Your task to perform on an android device: Check the weather Image 0: 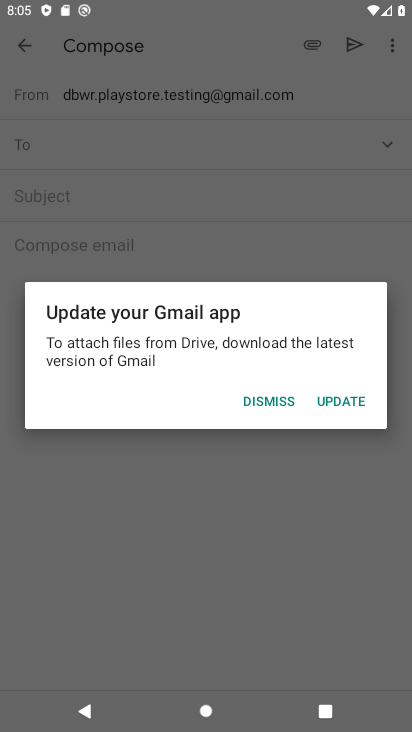
Step 0: press home button
Your task to perform on an android device: Check the weather Image 1: 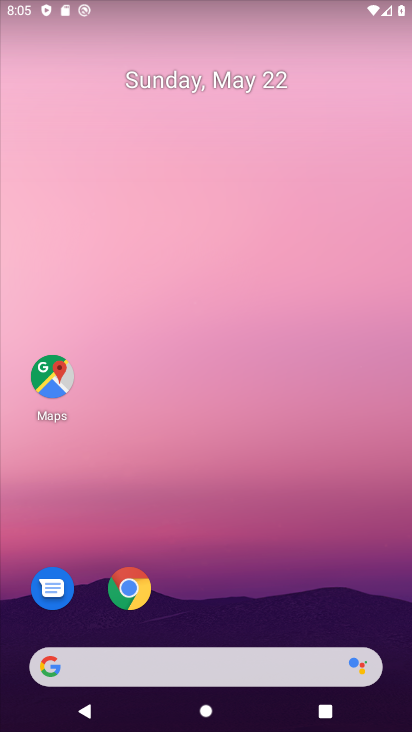
Step 1: drag from (227, 622) to (207, 144)
Your task to perform on an android device: Check the weather Image 2: 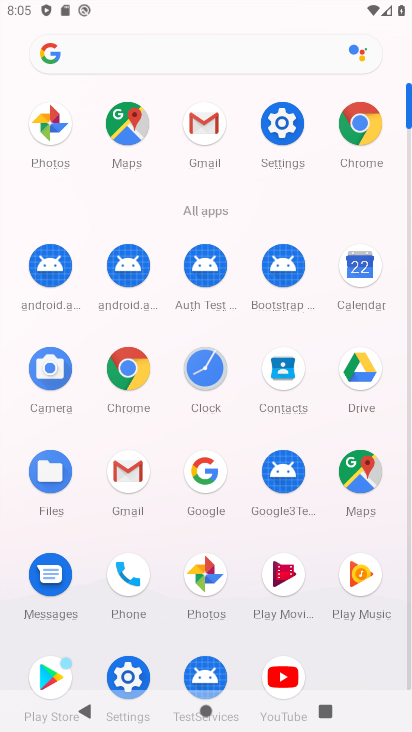
Step 2: click (201, 467)
Your task to perform on an android device: Check the weather Image 3: 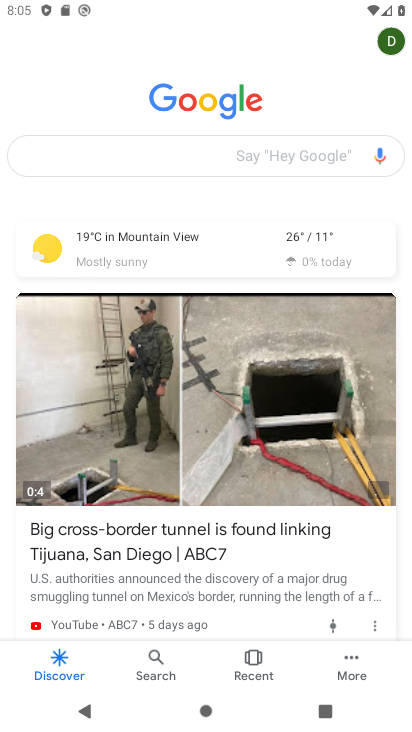
Step 3: click (154, 271)
Your task to perform on an android device: Check the weather Image 4: 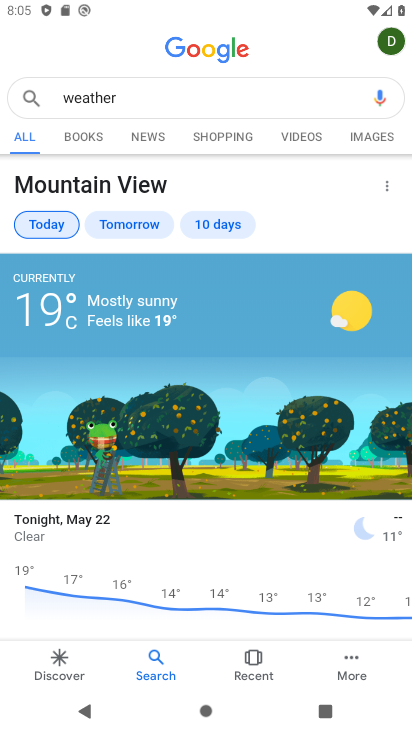
Step 4: task complete